Your task to perform on an android device: Search for Italian restaurants on Maps Image 0: 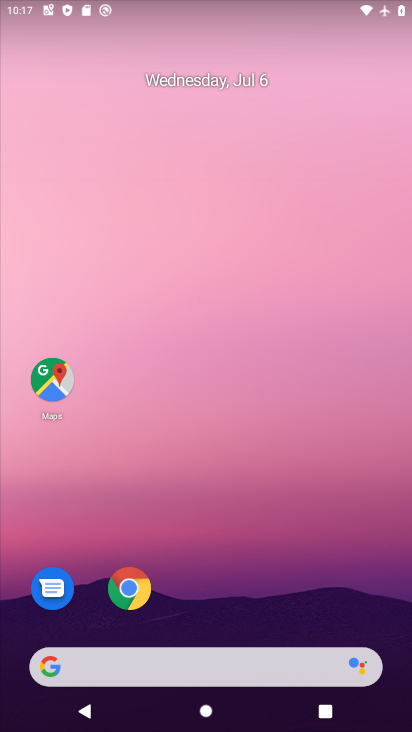
Step 0: drag from (247, 629) to (245, 112)
Your task to perform on an android device: Search for Italian restaurants on Maps Image 1: 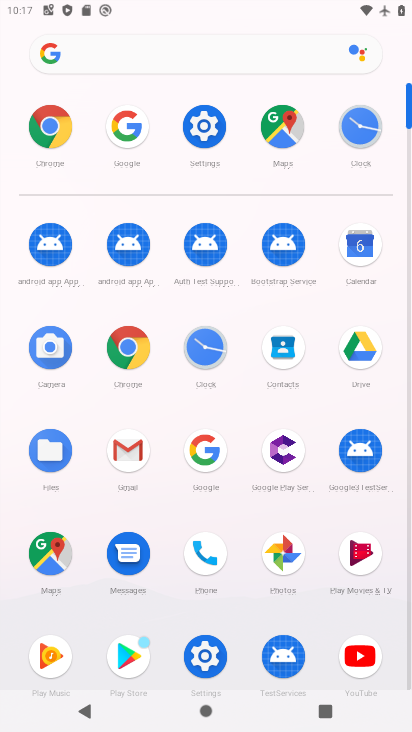
Step 1: click (283, 113)
Your task to perform on an android device: Search for Italian restaurants on Maps Image 2: 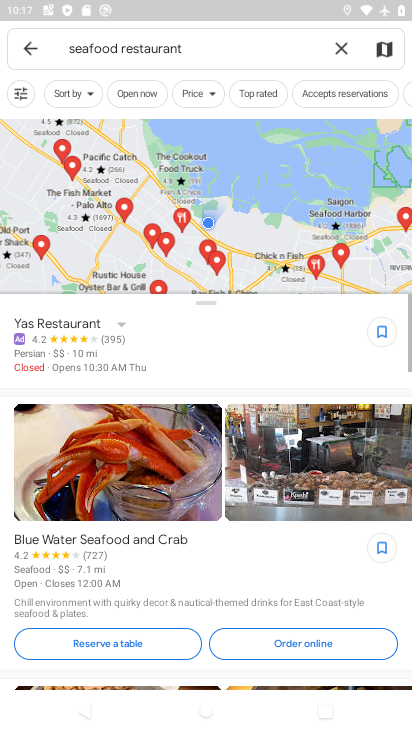
Step 2: click (334, 42)
Your task to perform on an android device: Search for Italian restaurants on Maps Image 3: 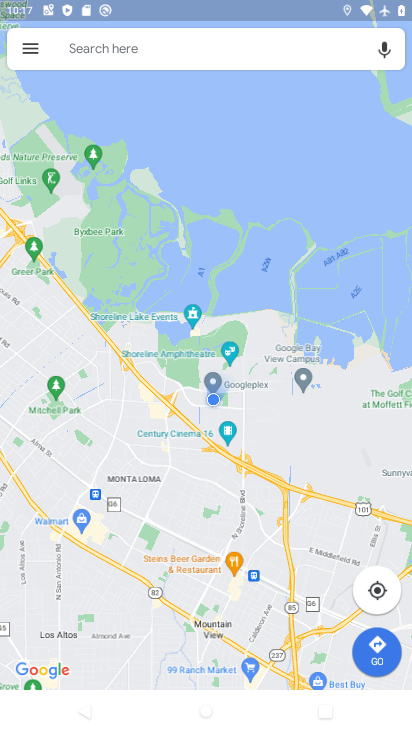
Step 3: click (182, 45)
Your task to perform on an android device: Search for Italian restaurants on Maps Image 4: 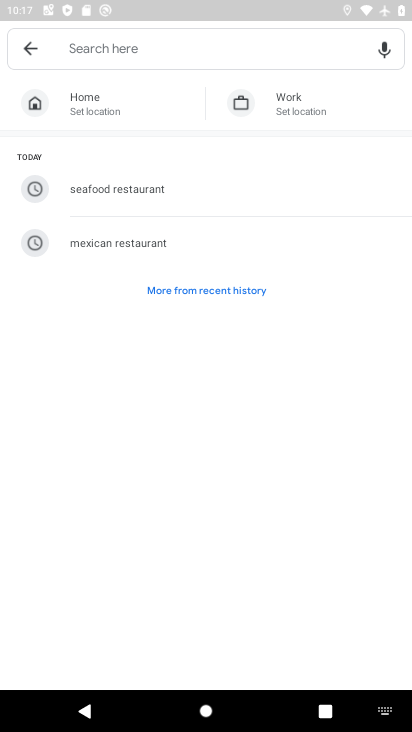
Step 4: type "Italian restaurants  "
Your task to perform on an android device: Search for Italian restaurants on Maps Image 5: 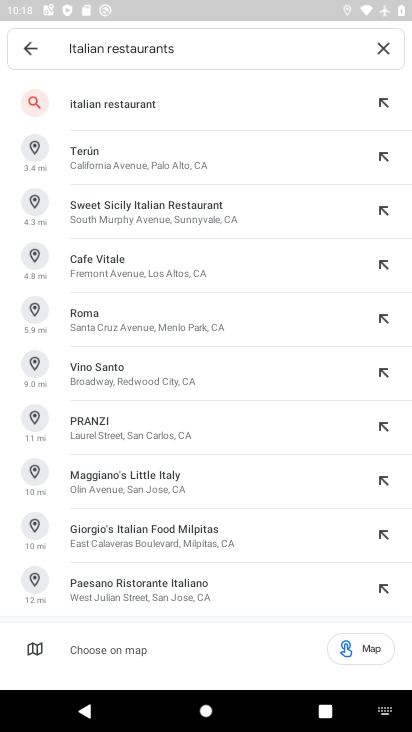
Step 5: click (133, 100)
Your task to perform on an android device: Search for Italian restaurants on Maps Image 6: 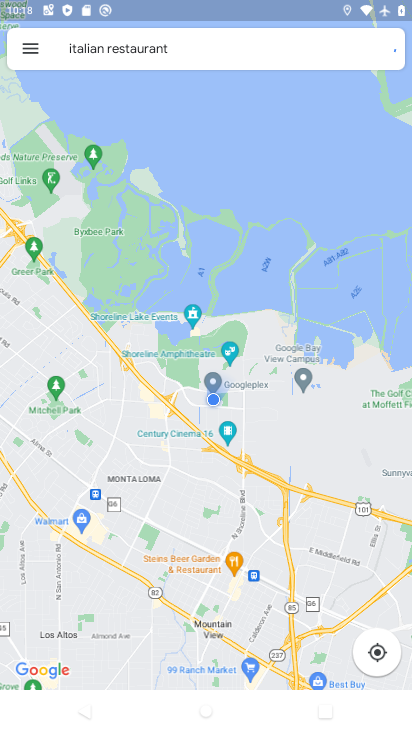
Step 6: task complete